Your task to perform on an android device: Search for razer blade on target, select the first entry, add it to the cart, then select checkout. Image 0: 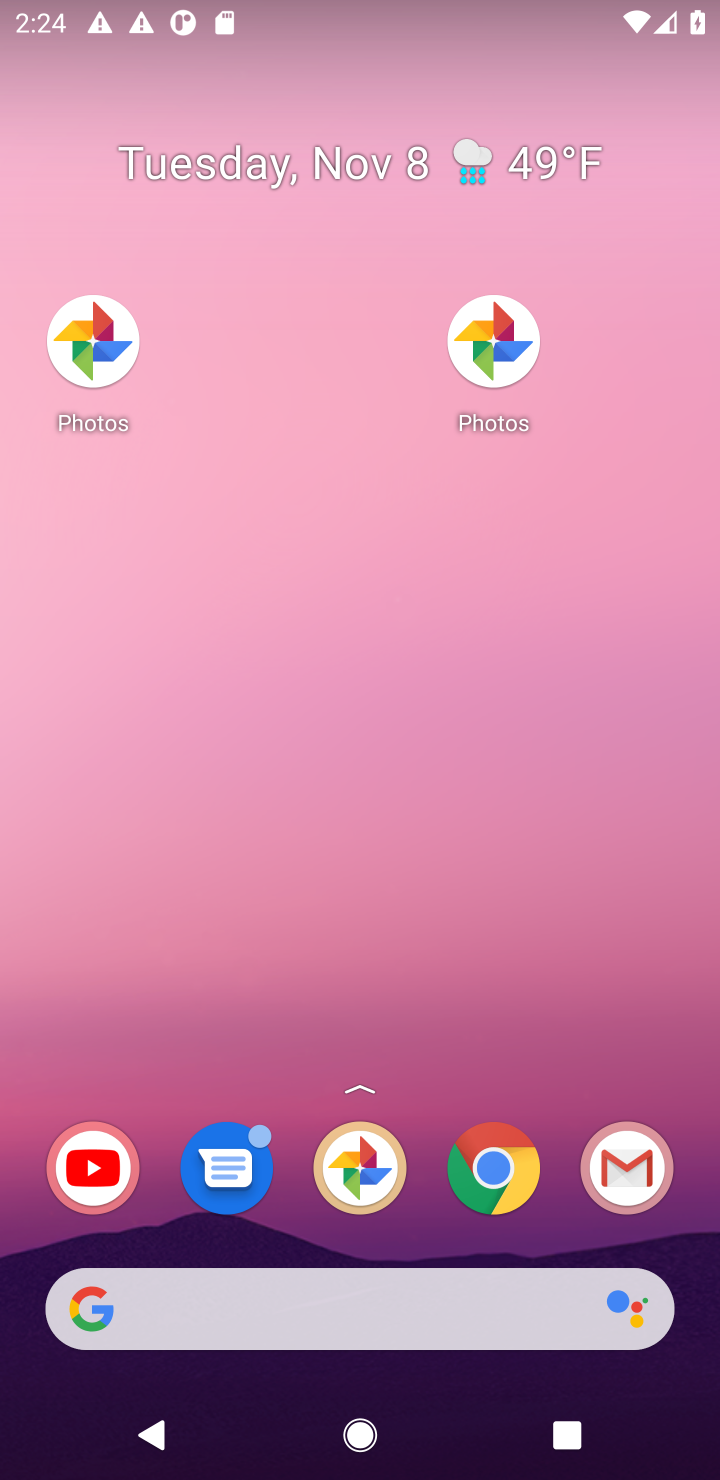
Step 0: drag from (280, 770) to (371, 412)
Your task to perform on an android device: Search for razer blade on target, select the first entry, add it to the cart, then select checkout. Image 1: 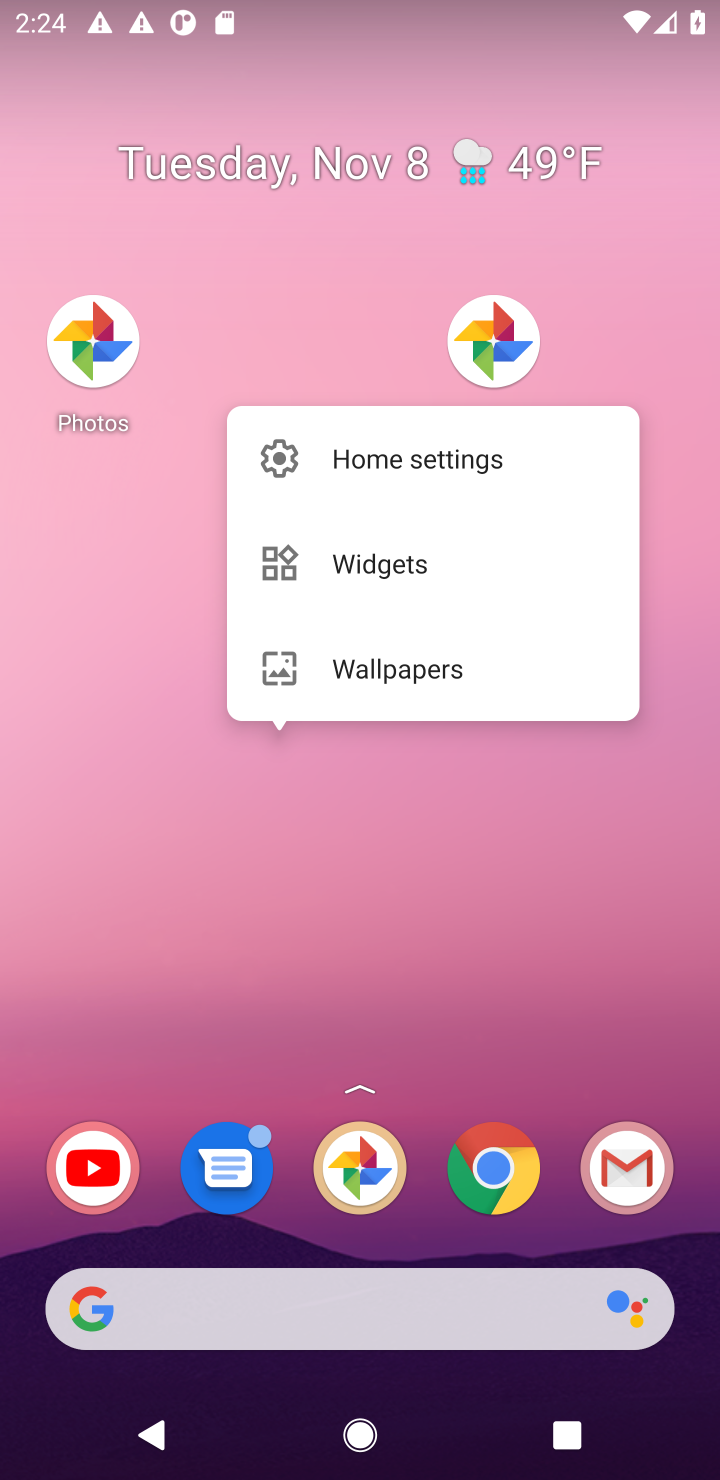
Step 1: click (184, 936)
Your task to perform on an android device: Search for razer blade on target, select the first entry, add it to the cart, then select checkout. Image 2: 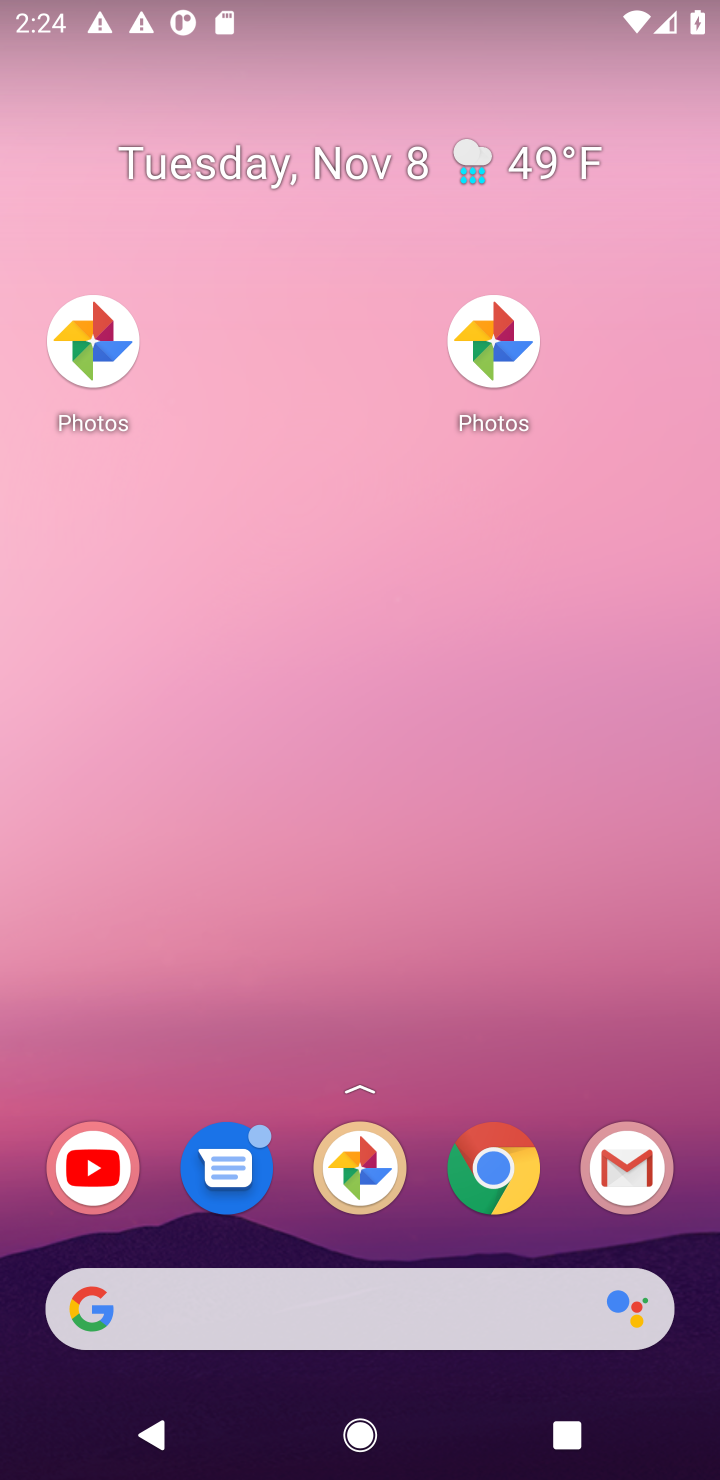
Step 2: drag from (343, 1183) to (439, 356)
Your task to perform on an android device: Search for razer blade on target, select the first entry, add it to the cart, then select checkout. Image 3: 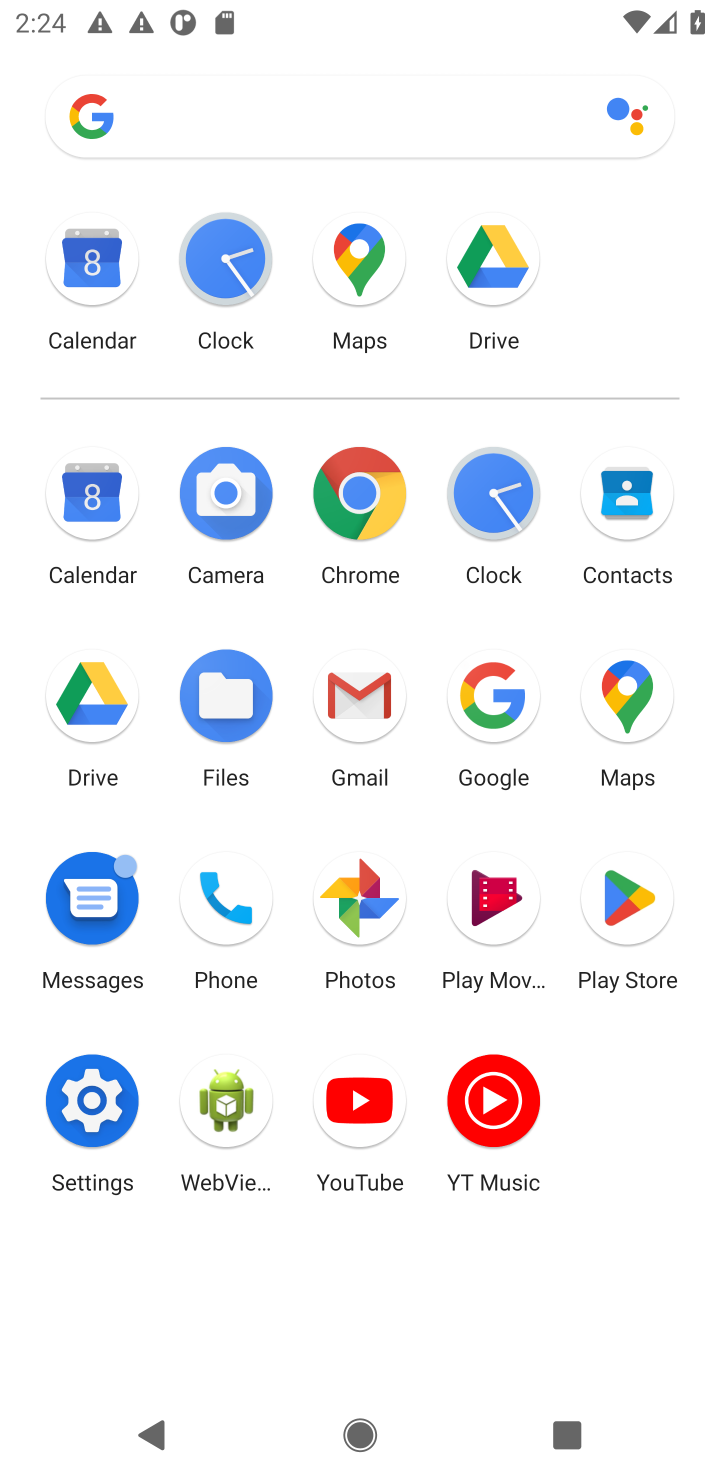
Step 3: click (347, 512)
Your task to perform on an android device: Search for razer blade on target, select the first entry, add it to the cart, then select checkout. Image 4: 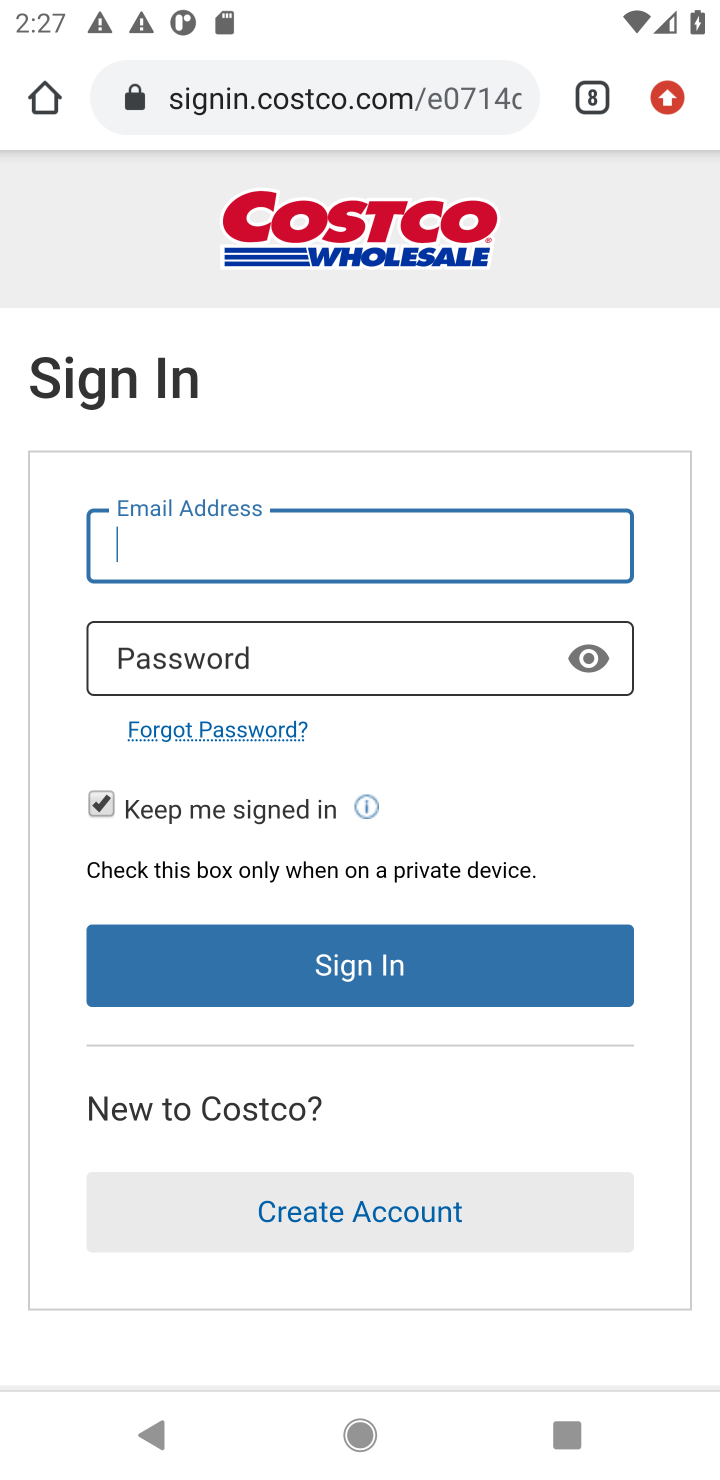
Step 4: press back button
Your task to perform on an android device: Search for razer blade on target, select the first entry, add it to the cart, then select checkout. Image 5: 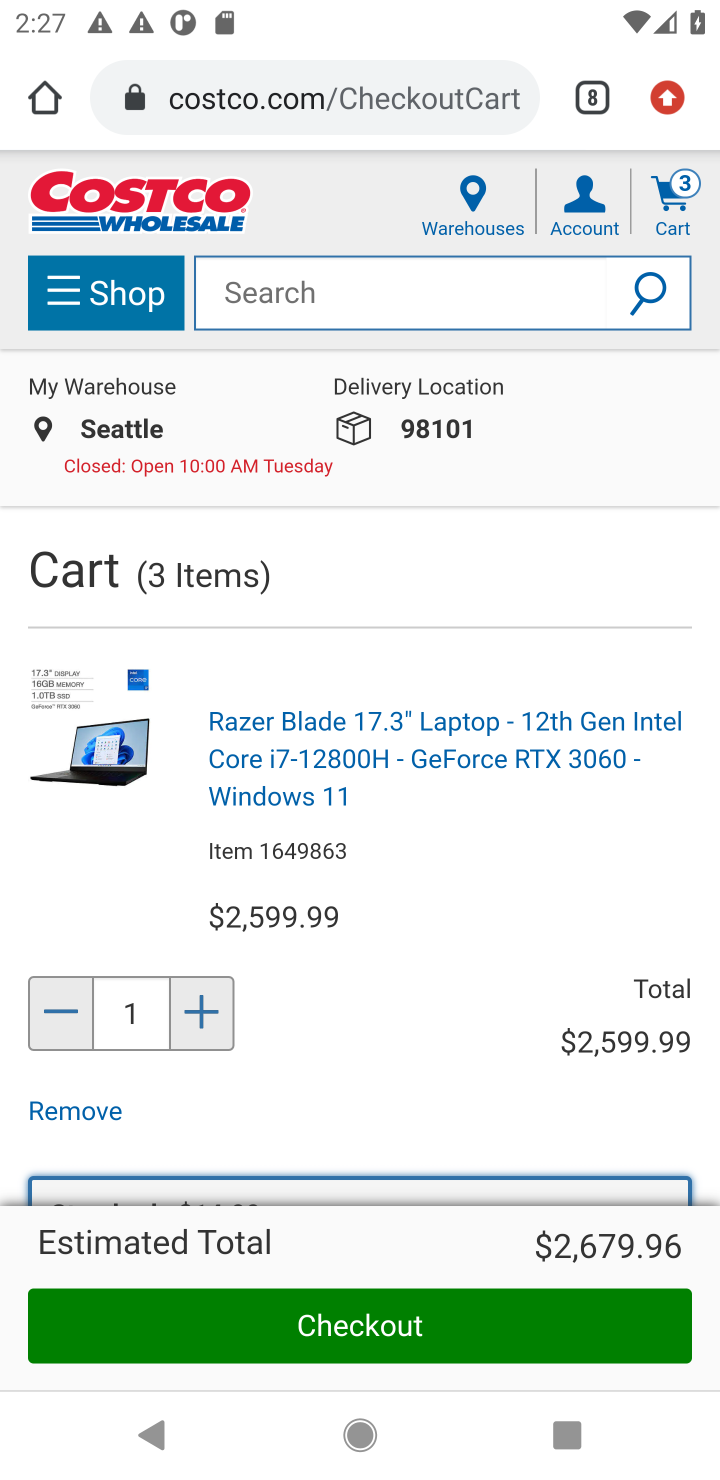
Step 5: click (346, 1314)
Your task to perform on an android device: Search for razer blade on target, select the first entry, add it to the cart, then select checkout. Image 6: 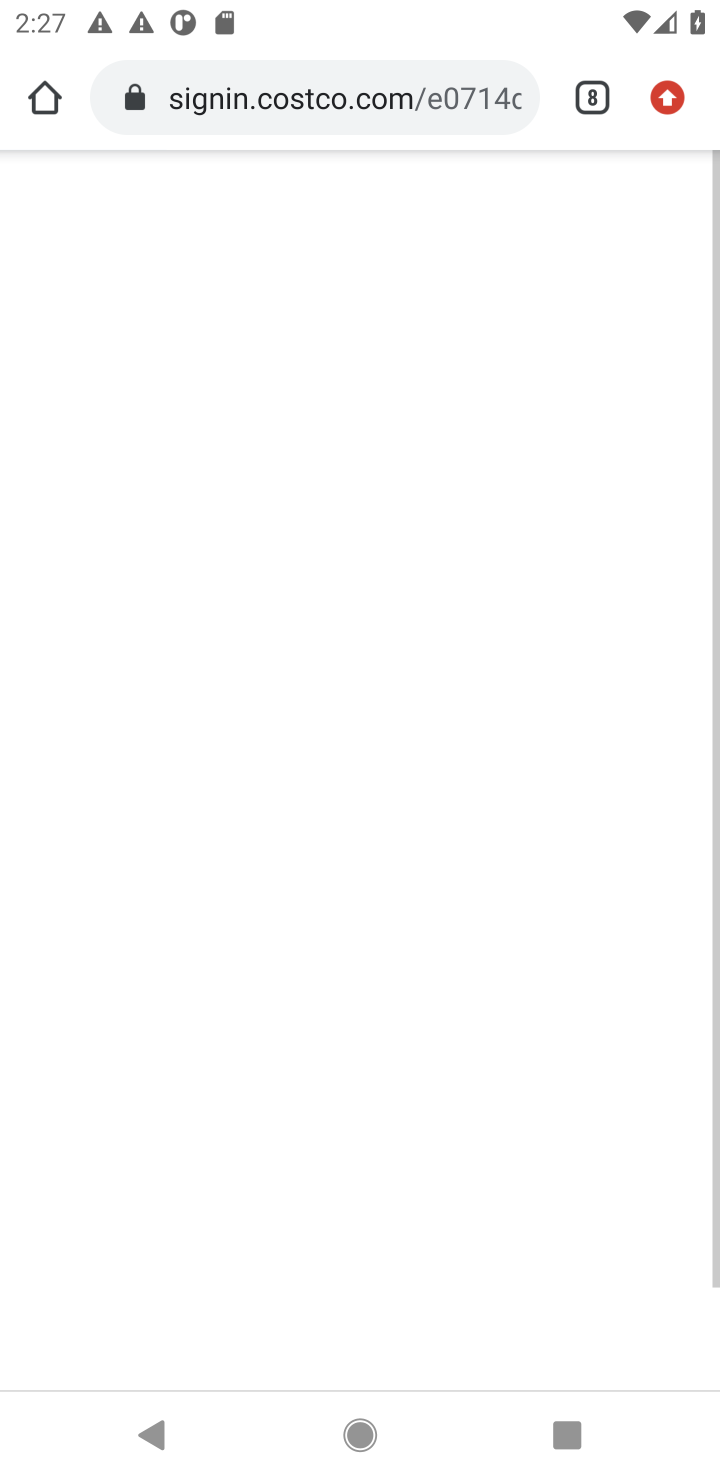
Step 6: task complete